Your task to perform on an android device: Open calendar and show me the fourth week of next month Image 0: 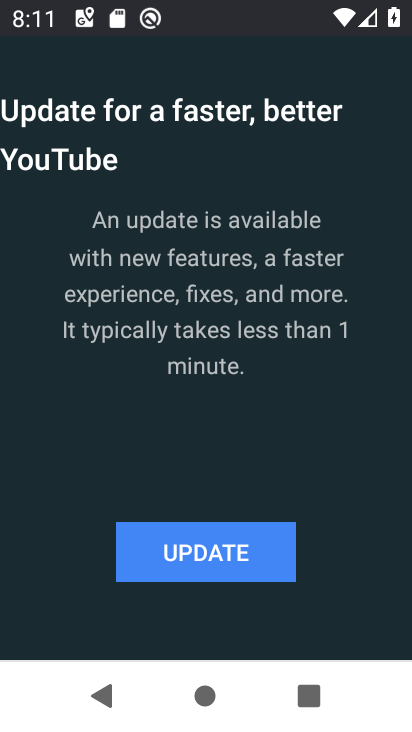
Step 0: press home button
Your task to perform on an android device: Open calendar and show me the fourth week of next month Image 1: 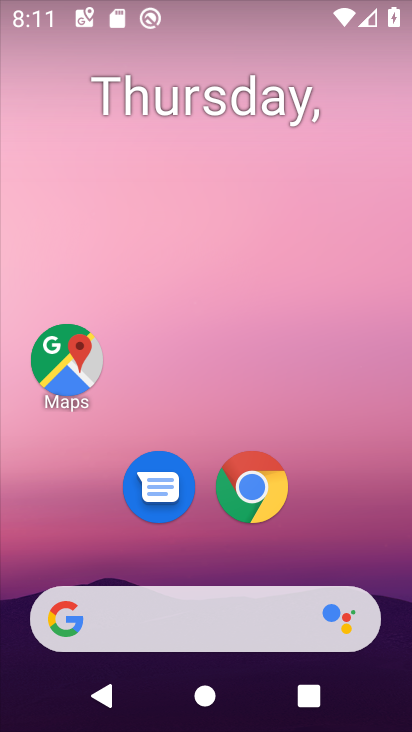
Step 1: drag from (216, 564) to (239, 15)
Your task to perform on an android device: Open calendar and show me the fourth week of next month Image 2: 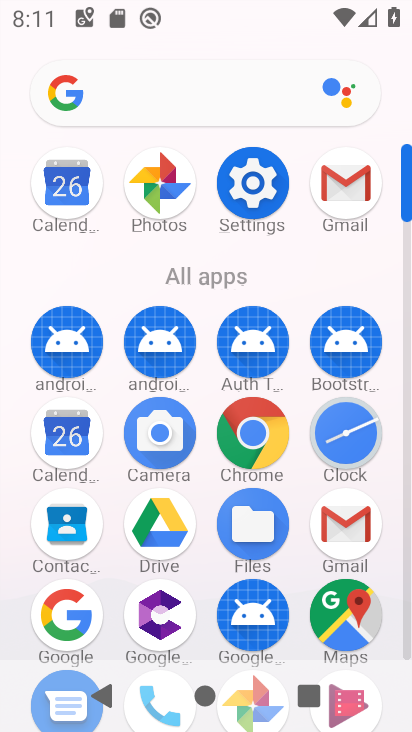
Step 2: click (69, 435)
Your task to perform on an android device: Open calendar and show me the fourth week of next month Image 3: 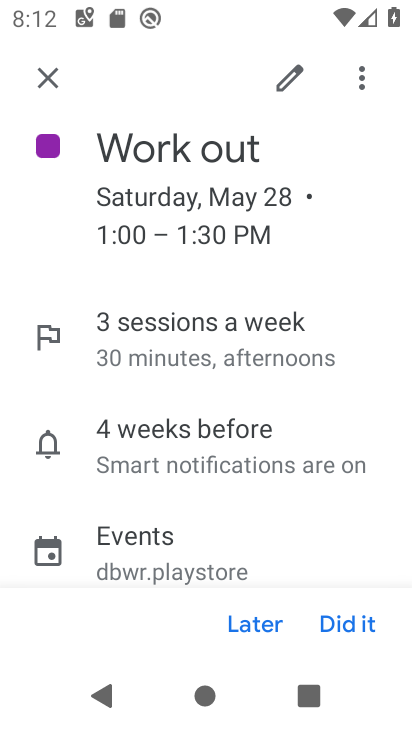
Step 3: click (253, 625)
Your task to perform on an android device: Open calendar and show me the fourth week of next month Image 4: 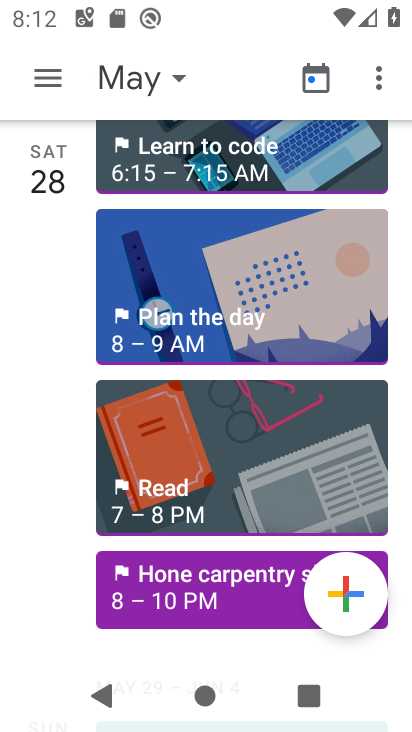
Step 4: click (171, 85)
Your task to perform on an android device: Open calendar and show me the fourth week of next month Image 5: 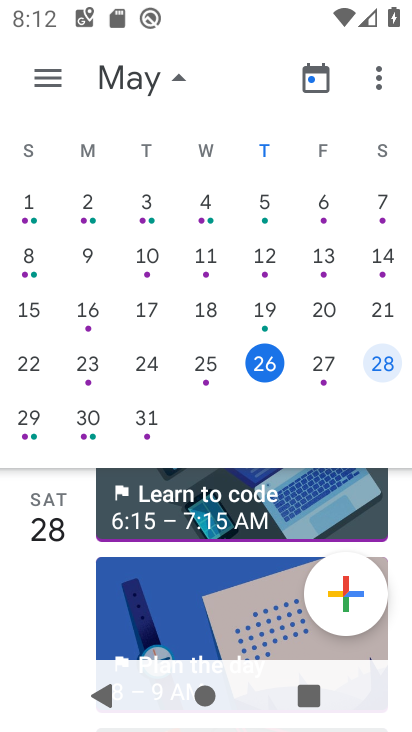
Step 5: drag from (370, 296) to (31, 237)
Your task to perform on an android device: Open calendar and show me the fourth week of next month Image 6: 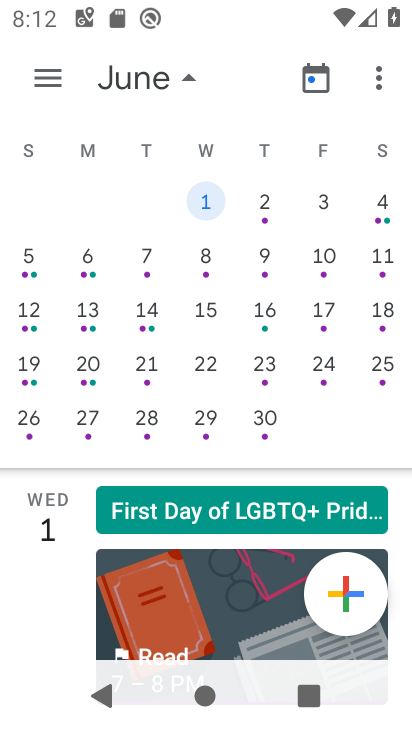
Step 6: click (90, 364)
Your task to perform on an android device: Open calendar and show me the fourth week of next month Image 7: 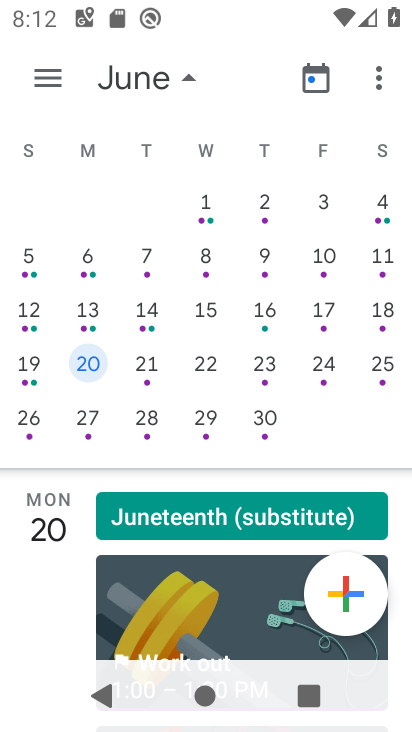
Step 7: task complete